Your task to perform on an android device: delete browsing data in the chrome app Image 0: 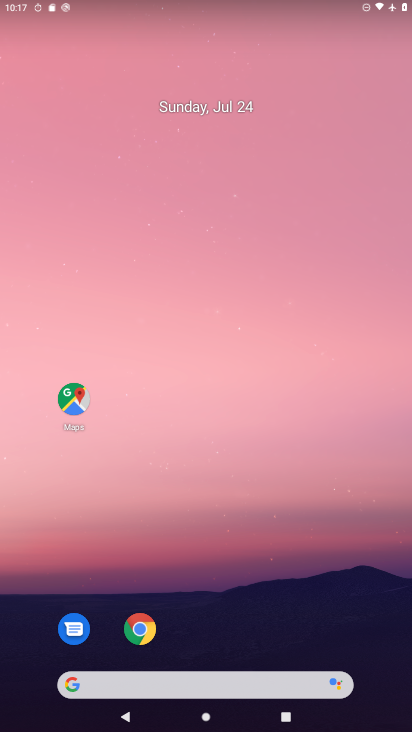
Step 0: drag from (185, 608) to (149, 113)
Your task to perform on an android device: delete browsing data in the chrome app Image 1: 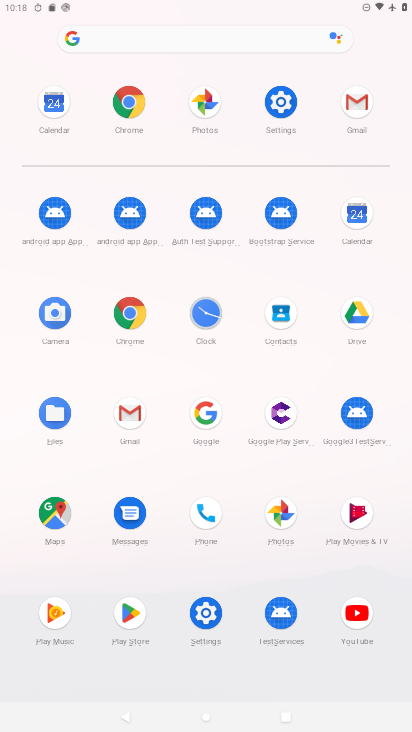
Step 1: click (122, 325)
Your task to perform on an android device: delete browsing data in the chrome app Image 2: 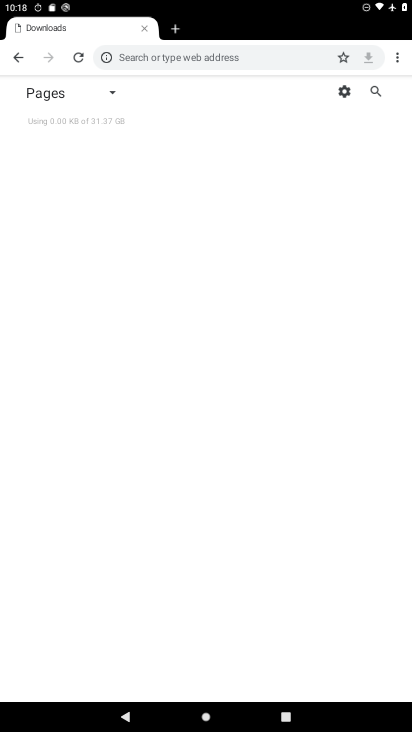
Step 2: click (396, 56)
Your task to perform on an android device: delete browsing data in the chrome app Image 3: 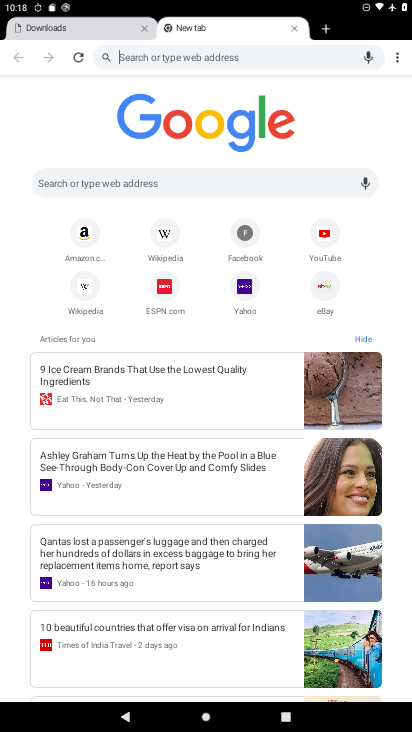
Step 3: click (402, 57)
Your task to perform on an android device: delete browsing data in the chrome app Image 4: 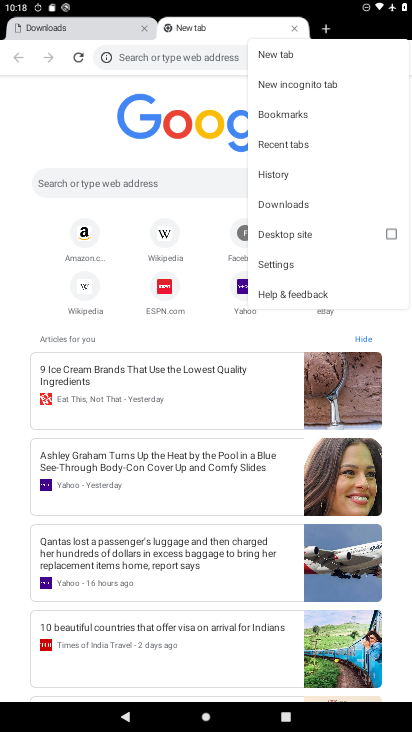
Step 4: click (289, 174)
Your task to perform on an android device: delete browsing data in the chrome app Image 5: 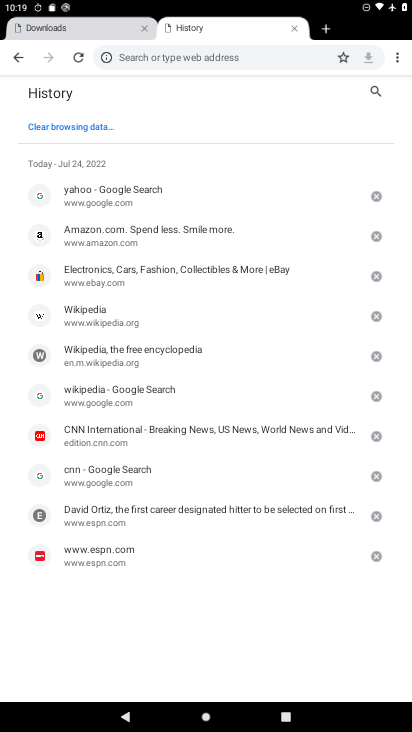
Step 5: click (75, 124)
Your task to perform on an android device: delete browsing data in the chrome app Image 6: 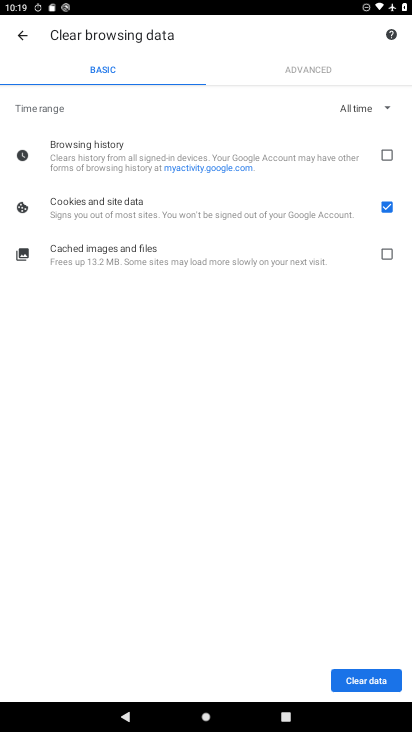
Step 6: click (387, 151)
Your task to perform on an android device: delete browsing data in the chrome app Image 7: 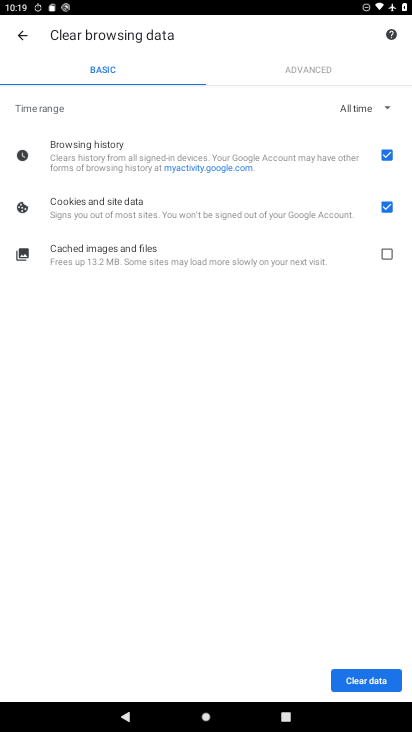
Step 7: click (383, 212)
Your task to perform on an android device: delete browsing data in the chrome app Image 8: 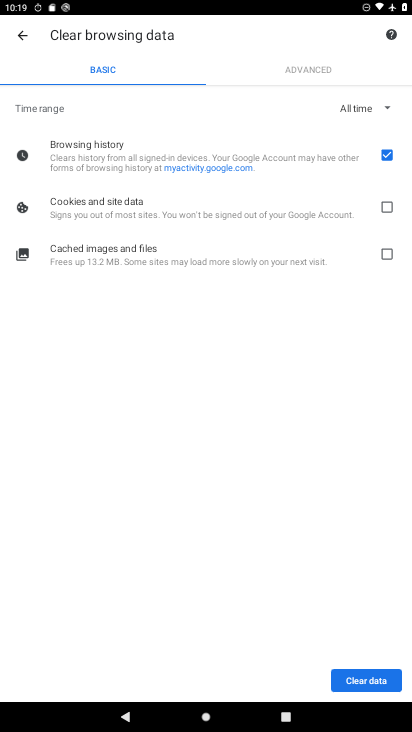
Step 8: click (375, 678)
Your task to perform on an android device: delete browsing data in the chrome app Image 9: 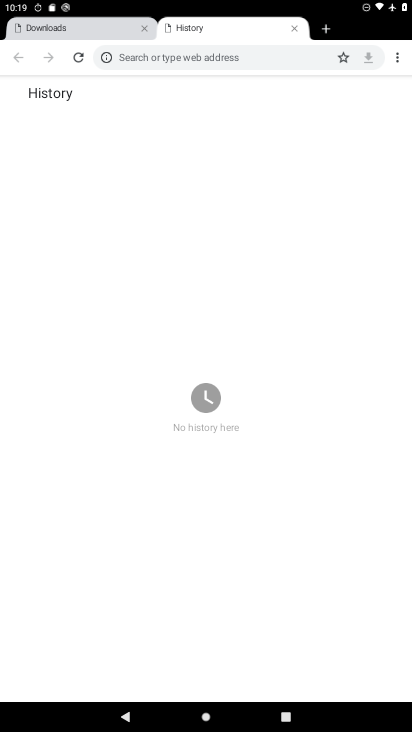
Step 9: task complete